Your task to perform on an android device: allow cookies in the chrome app Image 0: 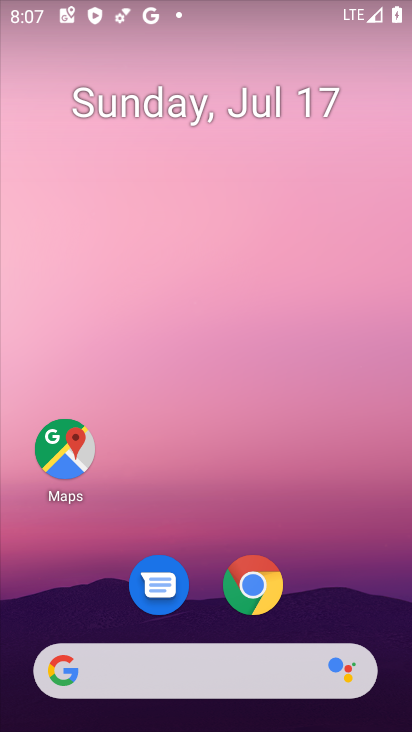
Step 0: click (261, 578)
Your task to perform on an android device: allow cookies in the chrome app Image 1: 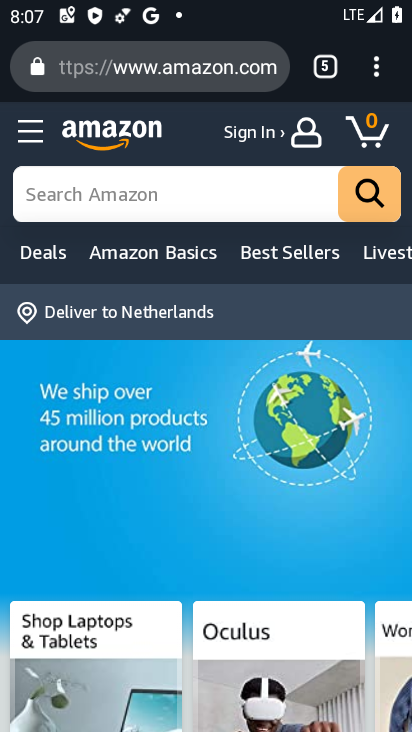
Step 1: click (373, 63)
Your task to perform on an android device: allow cookies in the chrome app Image 2: 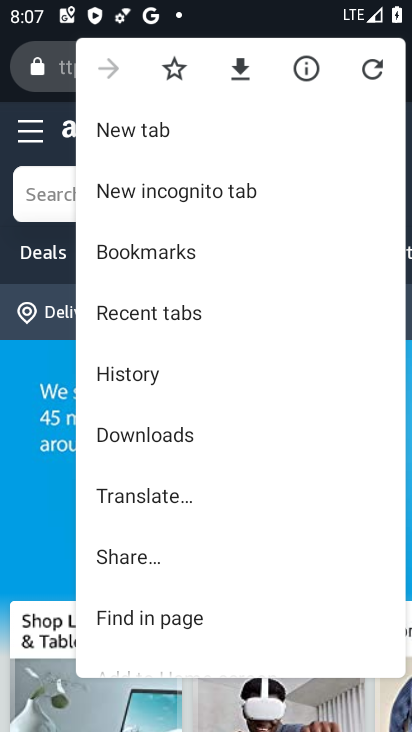
Step 2: drag from (222, 494) to (251, 245)
Your task to perform on an android device: allow cookies in the chrome app Image 3: 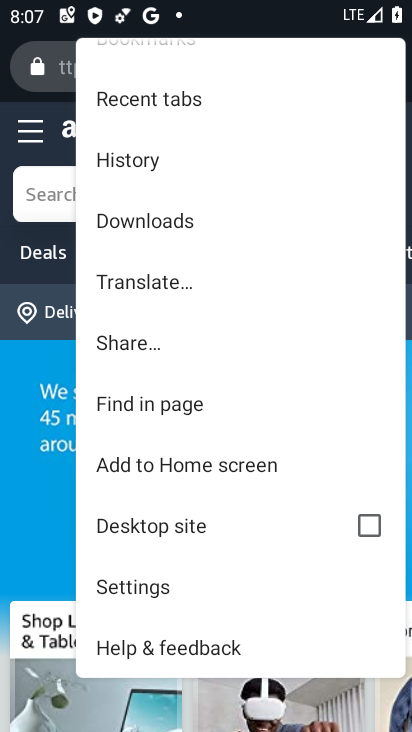
Step 3: click (162, 581)
Your task to perform on an android device: allow cookies in the chrome app Image 4: 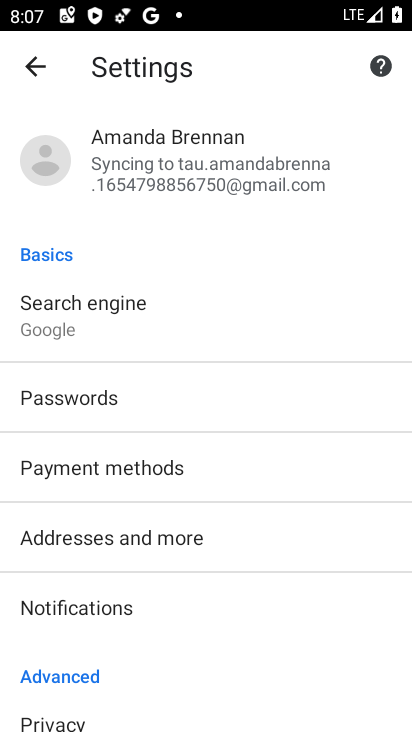
Step 4: drag from (252, 524) to (259, 265)
Your task to perform on an android device: allow cookies in the chrome app Image 5: 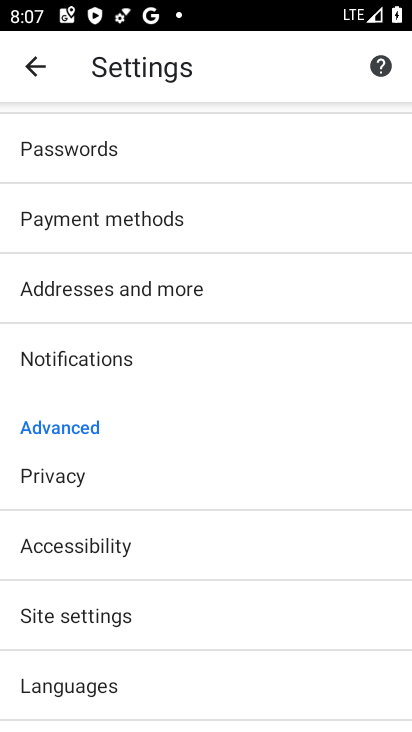
Step 5: click (120, 616)
Your task to perform on an android device: allow cookies in the chrome app Image 6: 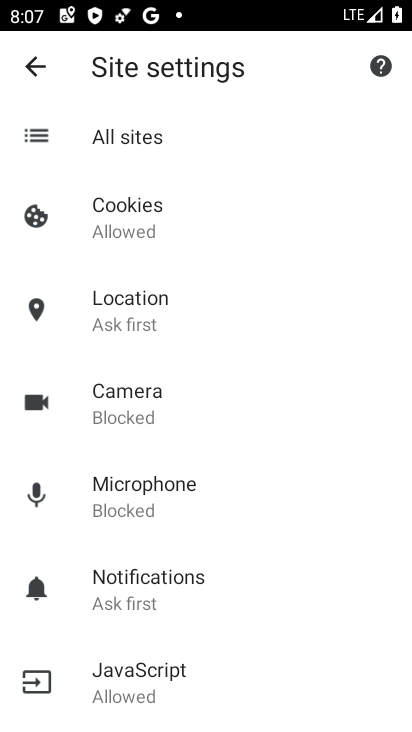
Step 6: click (138, 200)
Your task to perform on an android device: allow cookies in the chrome app Image 7: 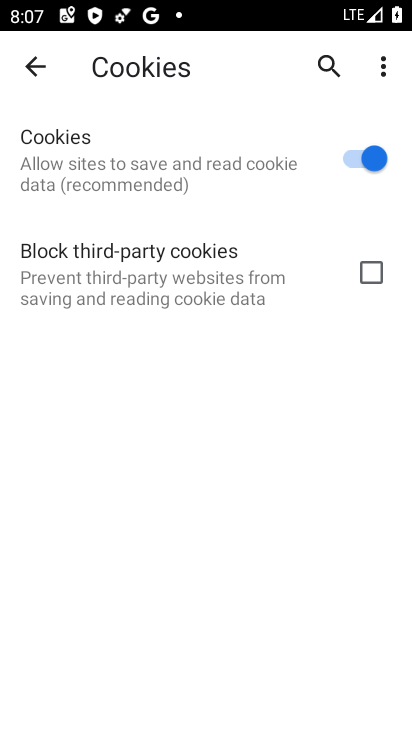
Step 7: task complete